Your task to perform on an android device: Open Youtube and go to the subscriptions tab Image 0: 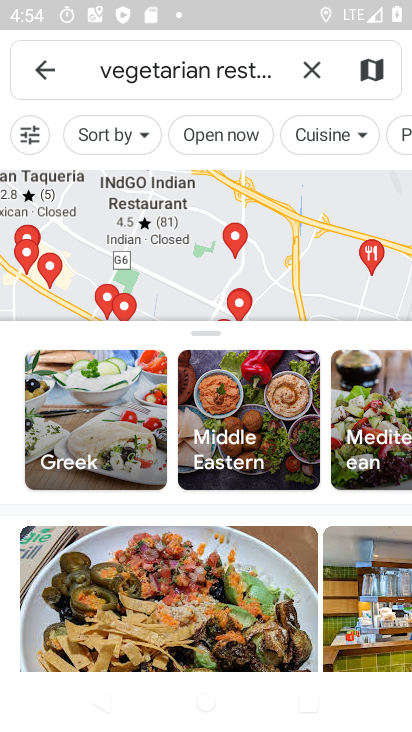
Step 0: press home button
Your task to perform on an android device: Open Youtube and go to the subscriptions tab Image 1: 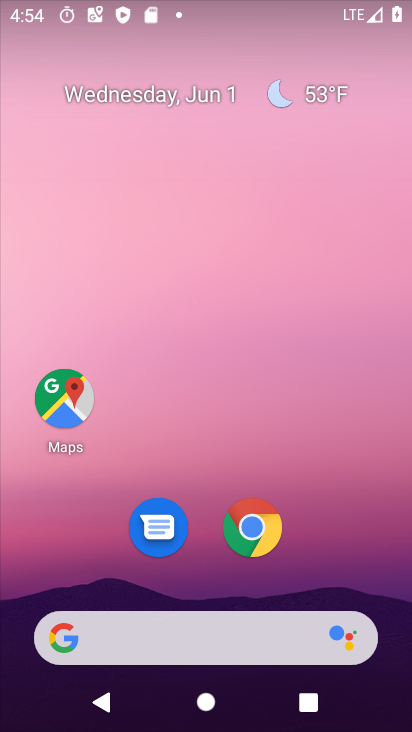
Step 1: drag from (340, 570) to (372, 54)
Your task to perform on an android device: Open Youtube and go to the subscriptions tab Image 2: 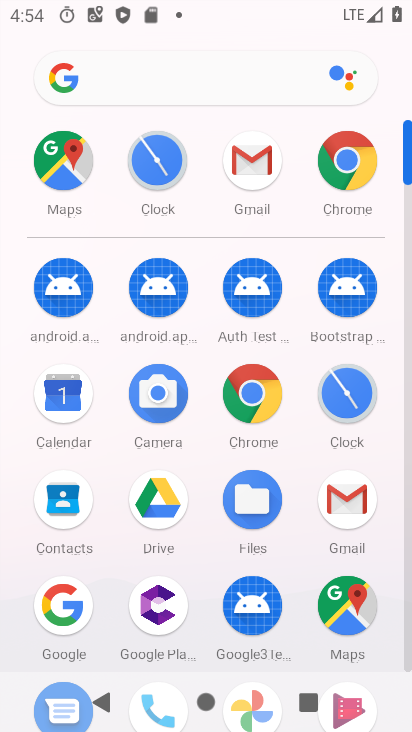
Step 2: drag from (306, 382) to (336, 74)
Your task to perform on an android device: Open Youtube and go to the subscriptions tab Image 3: 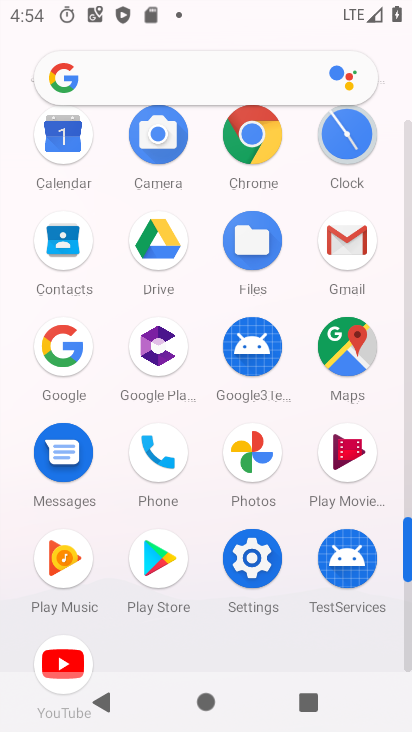
Step 3: click (73, 652)
Your task to perform on an android device: Open Youtube and go to the subscriptions tab Image 4: 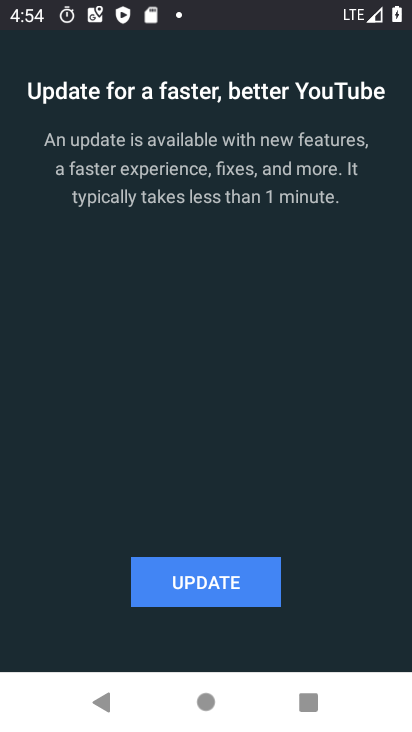
Step 4: click (253, 569)
Your task to perform on an android device: Open Youtube and go to the subscriptions tab Image 5: 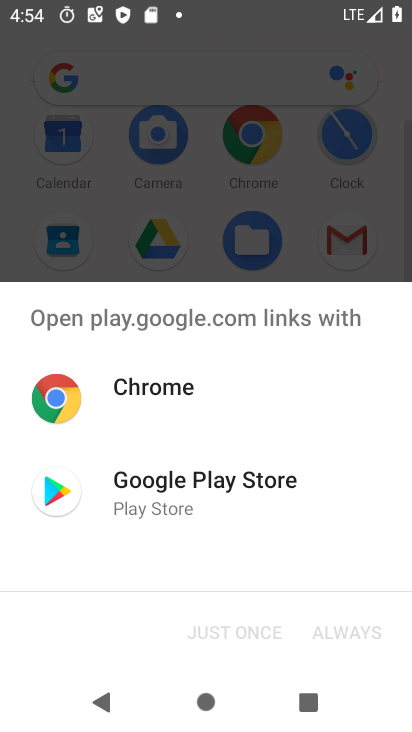
Step 5: click (214, 489)
Your task to perform on an android device: Open Youtube and go to the subscriptions tab Image 6: 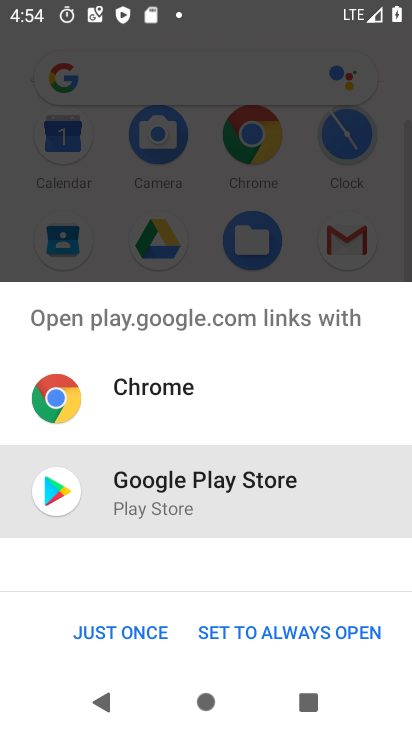
Step 6: click (111, 623)
Your task to perform on an android device: Open Youtube and go to the subscriptions tab Image 7: 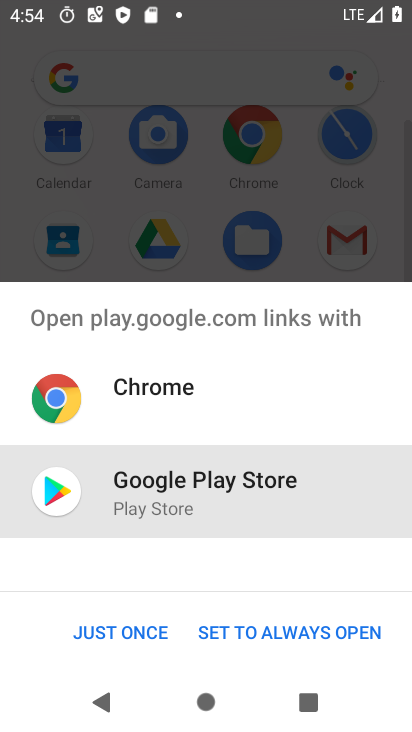
Step 7: click (114, 626)
Your task to perform on an android device: Open Youtube and go to the subscriptions tab Image 8: 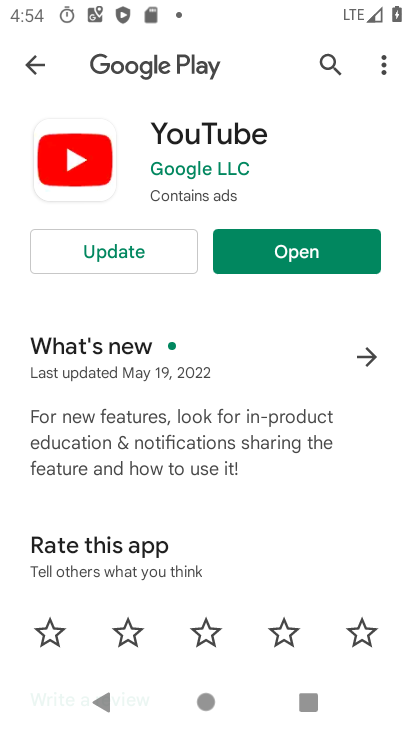
Step 8: click (105, 255)
Your task to perform on an android device: Open Youtube and go to the subscriptions tab Image 9: 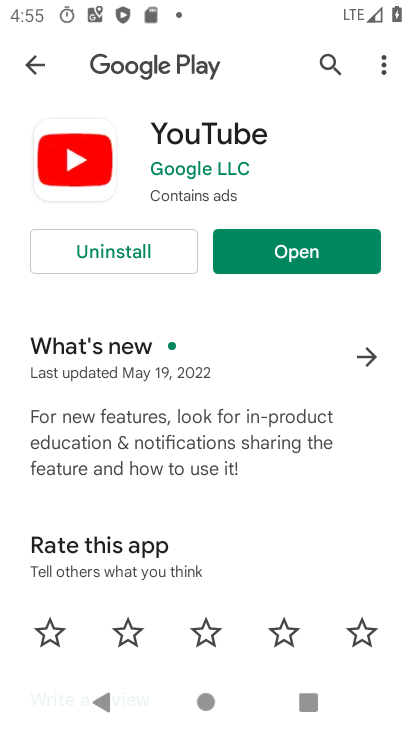
Step 9: click (302, 245)
Your task to perform on an android device: Open Youtube and go to the subscriptions tab Image 10: 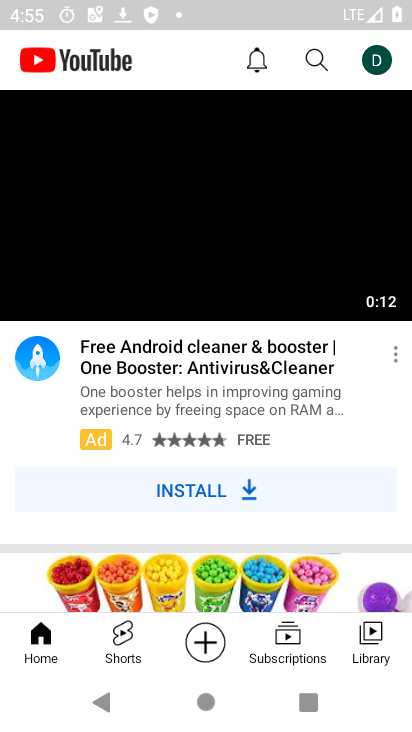
Step 10: click (288, 631)
Your task to perform on an android device: Open Youtube and go to the subscriptions tab Image 11: 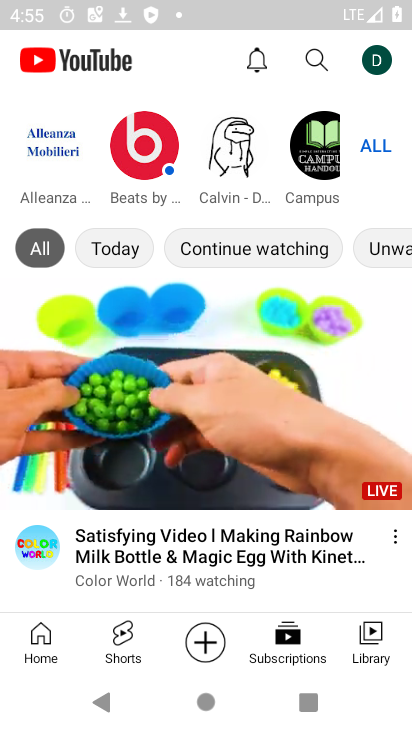
Step 11: task complete